Your task to perform on an android device: turn off translation in the chrome app Image 0: 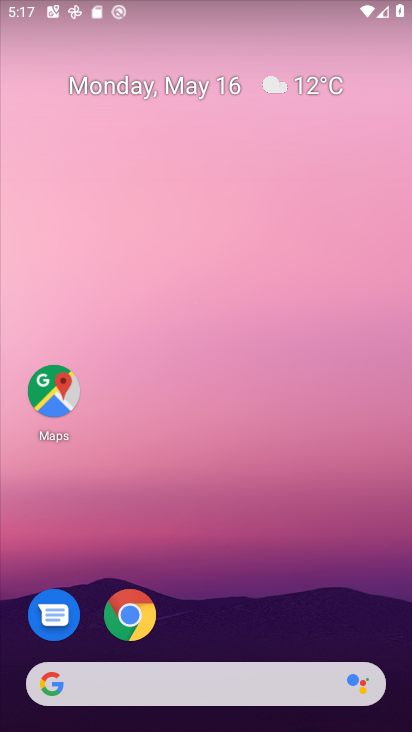
Step 0: click (134, 612)
Your task to perform on an android device: turn off translation in the chrome app Image 1: 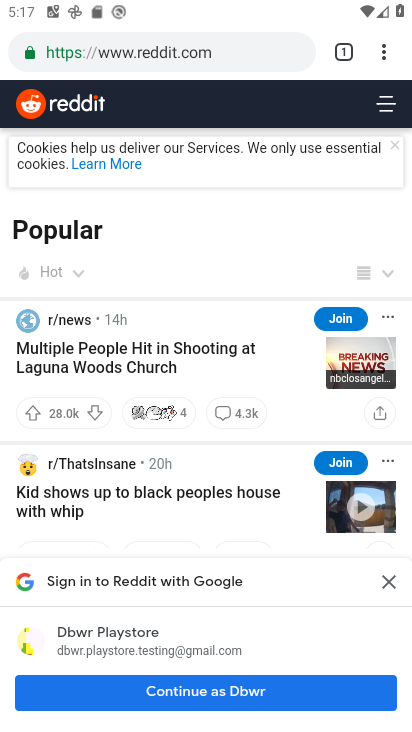
Step 1: click (380, 52)
Your task to perform on an android device: turn off translation in the chrome app Image 2: 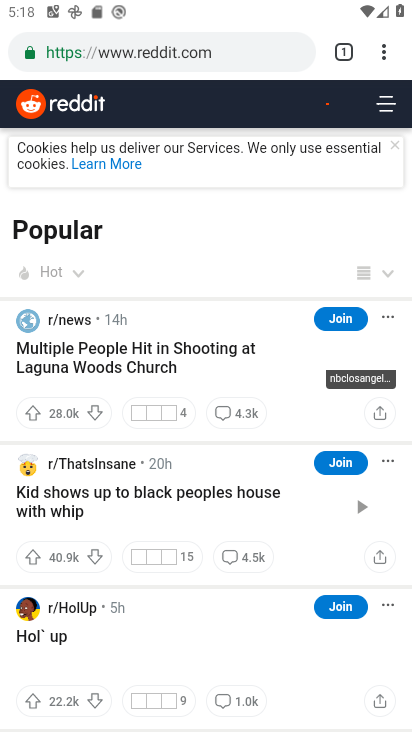
Step 2: click (383, 50)
Your task to perform on an android device: turn off translation in the chrome app Image 3: 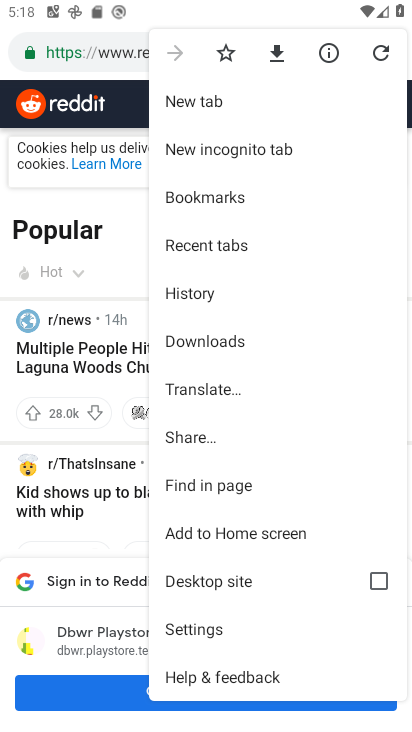
Step 3: click (206, 630)
Your task to perform on an android device: turn off translation in the chrome app Image 4: 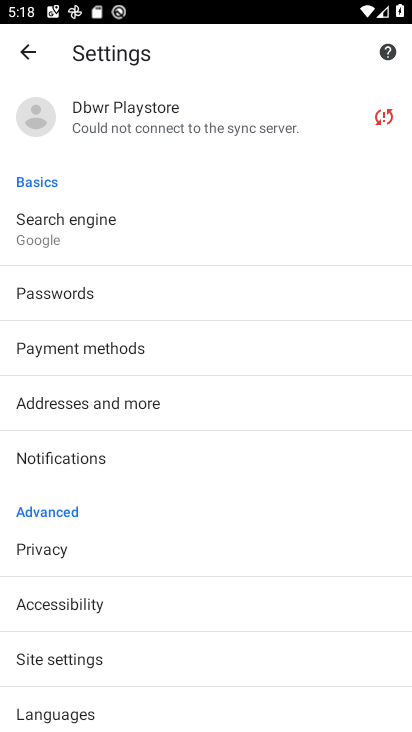
Step 4: click (76, 717)
Your task to perform on an android device: turn off translation in the chrome app Image 5: 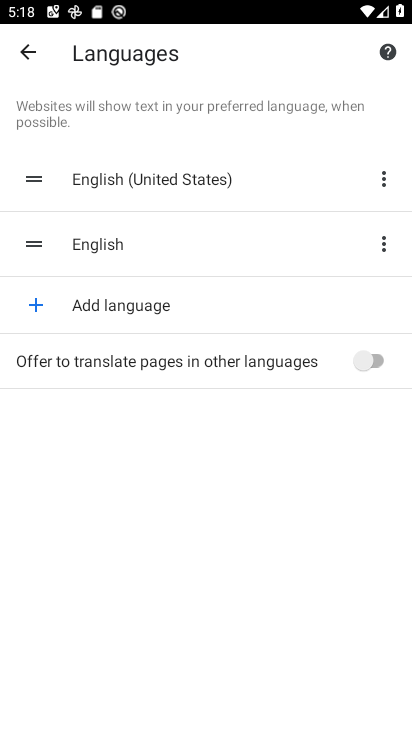
Step 5: task complete